Your task to perform on an android device: What is the recent news? Image 0: 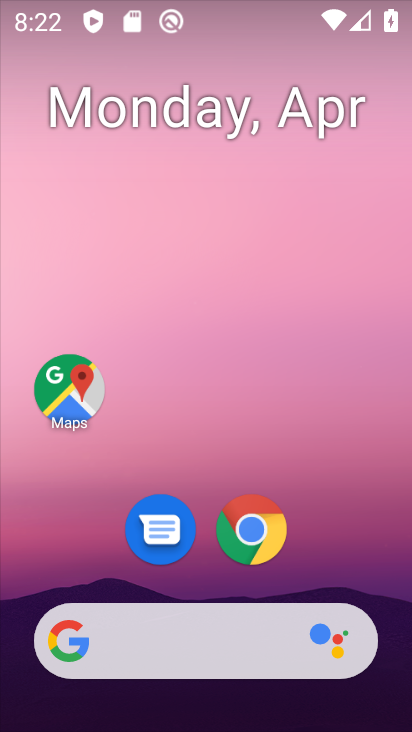
Step 0: drag from (352, 208) to (352, 147)
Your task to perform on an android device: What is the recent news? Image 1: 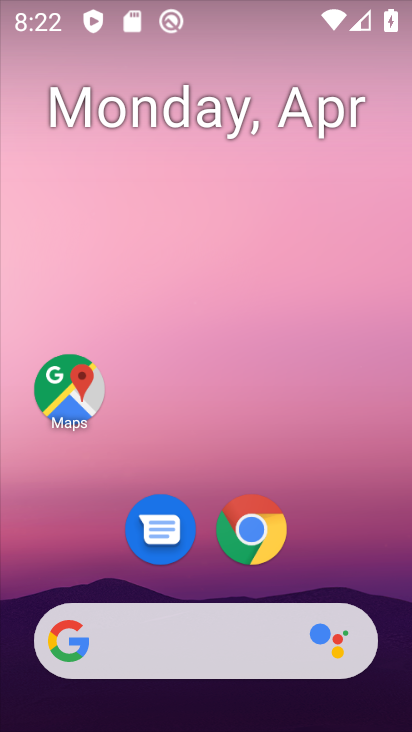
Step 1: drag from (348, 544) to (345, 116)
Your task to perform on an android device: What is the recent news? Image 2: 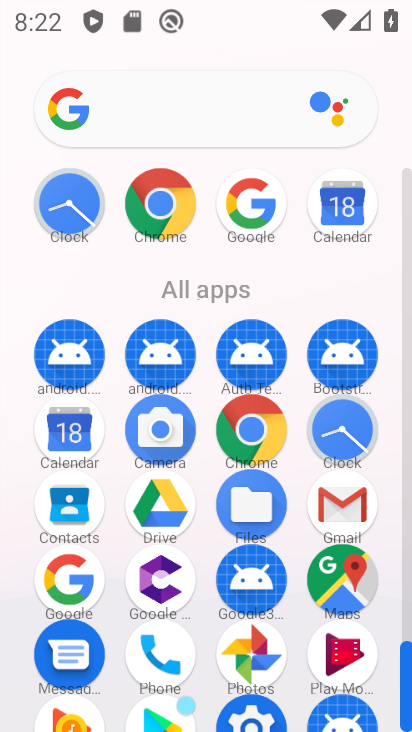
Step 2: click (269, 437)
Your task to perform on an android device: What is the recent news? Image 3: 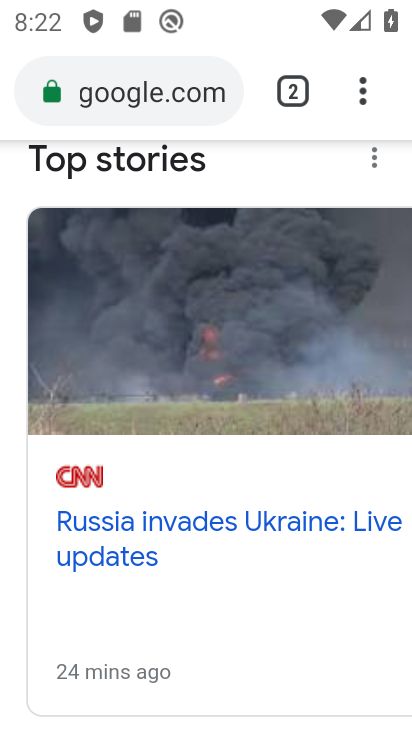
Step 3: click (292, 88)
Your task to perform on an android device: What is the recent news? Image 4: 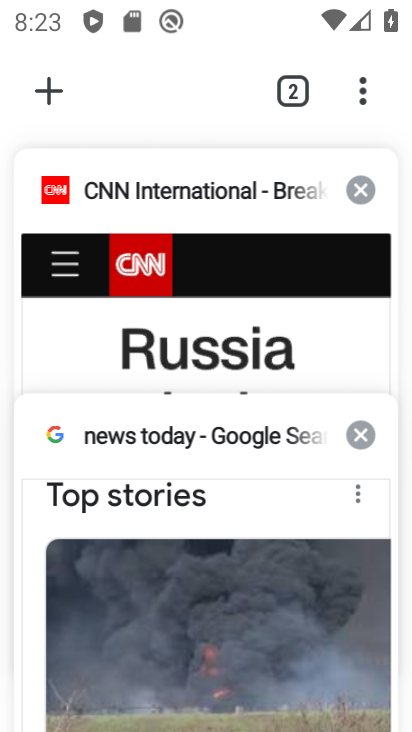
Step 4: click (51, 89)
Your task to perform on an android device: What is the recent news? Image 5: 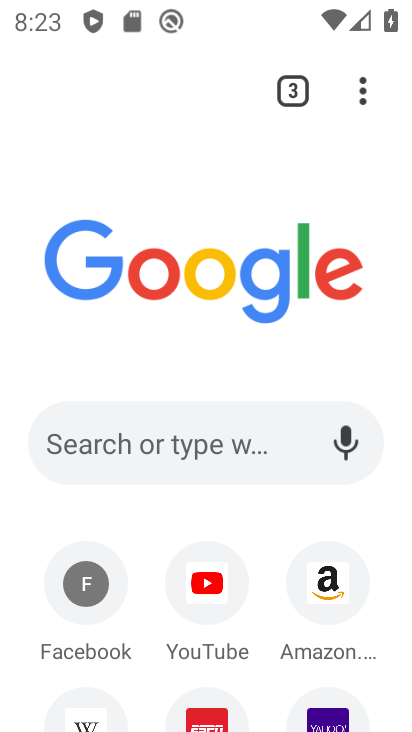
Step 5: click (218, 446)
Your task to perform on an android device: What is the recent news? Image 6: 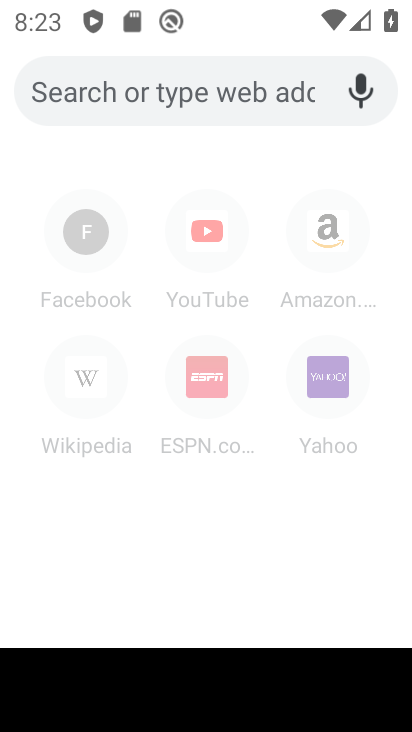
Step 6: type "recent news"
Your task to perform on an android device: What is the recent news? Image 7: 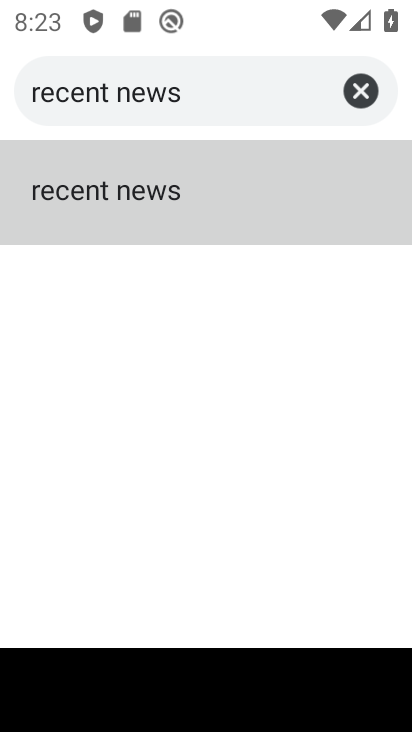
Step 7: click (140, 187)
Your task to perform on an android device: What is the recent news? Image 8: 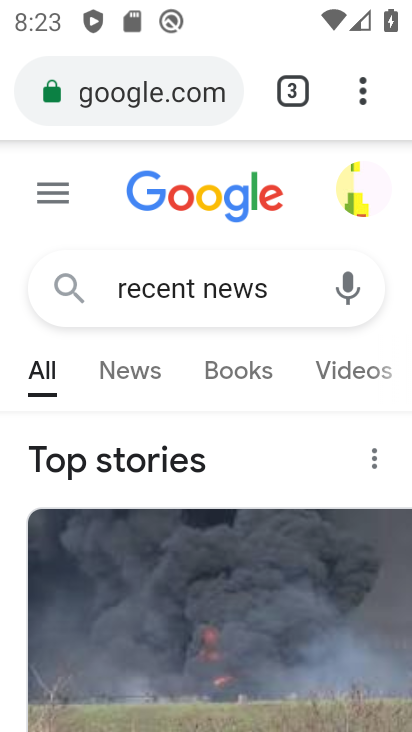
Step 8: task complete